Your task to perform on an android device: change the clock display to digital Image 0: 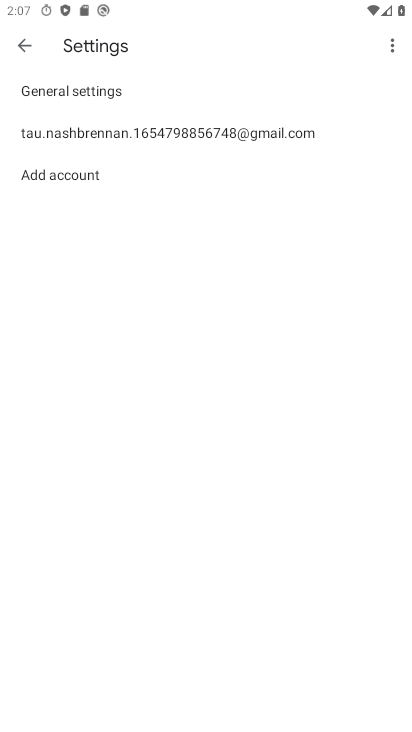
Step 0: press home button
Your task to perform on an android device: change the clock display to digital Image 1: 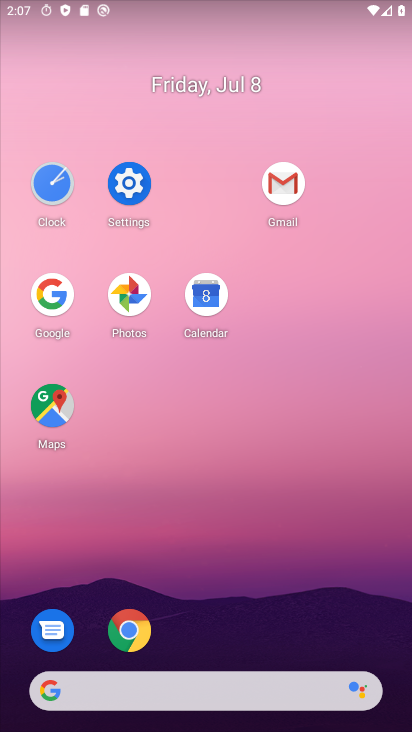
Step 1: click (58, 191)
Your task to perform on an android device: change the clock display to digital Image 2: 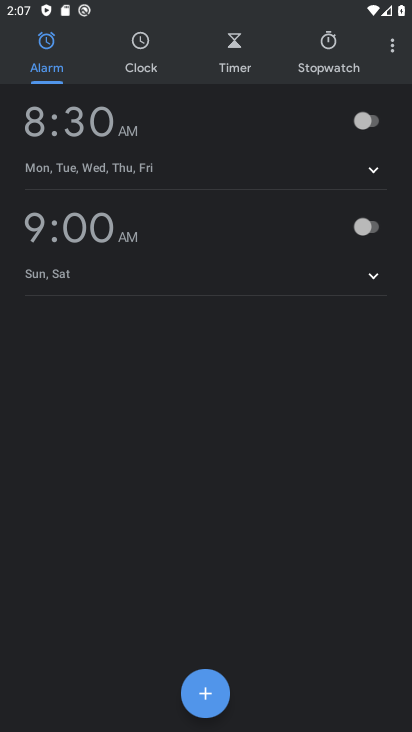
Step 2: click (389, 49)
Your task to perform on an android device: change the clock display to digital Image 3: 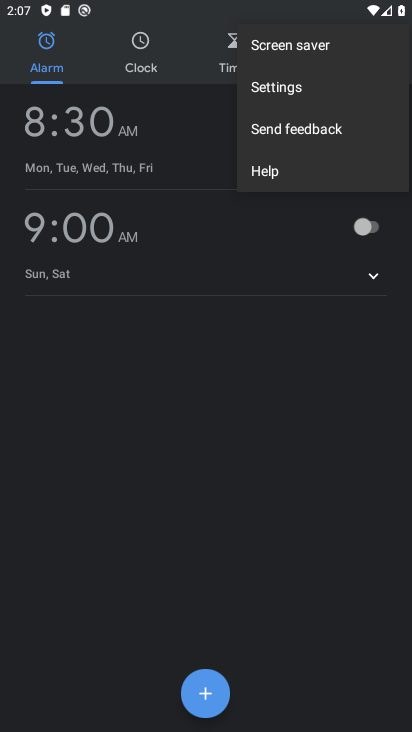
Step 3: click (343, 91)
Your task to perform on an android device: change the clock display to digital Image 4: 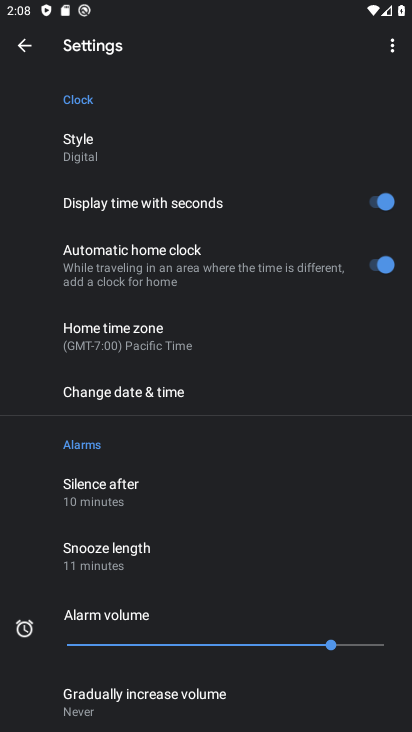
Step 4: task complete